Your task to perform on an android device: Open Wikipedia Image 0: 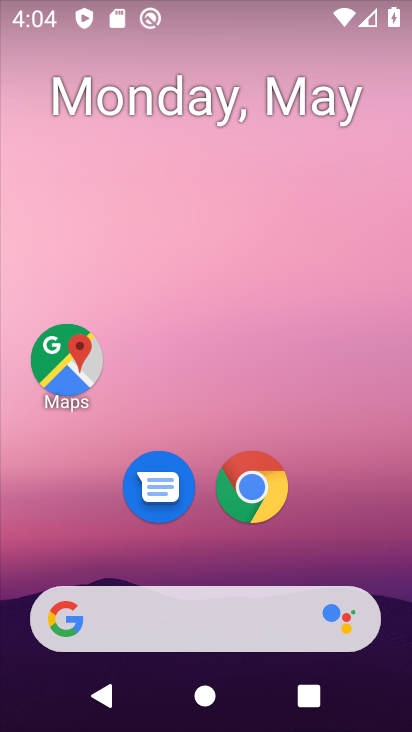
Step 0: click (268, 491)
Your task to perform on an android device: Open Wikipedia Image 1: 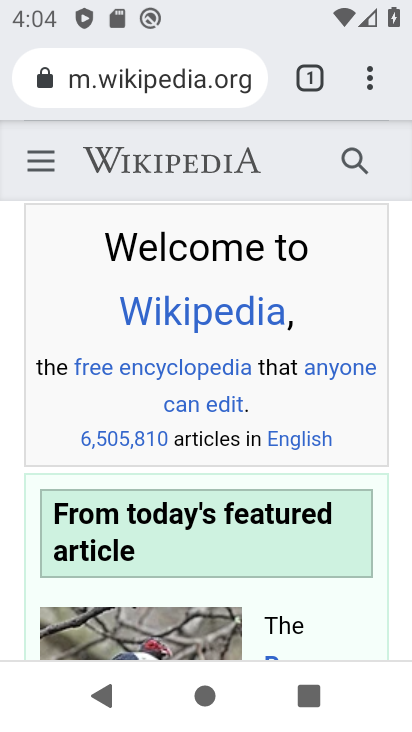
Step 1: task complete